Your task to perform on an android device: What's the weather going to be this weekend? Image 0: 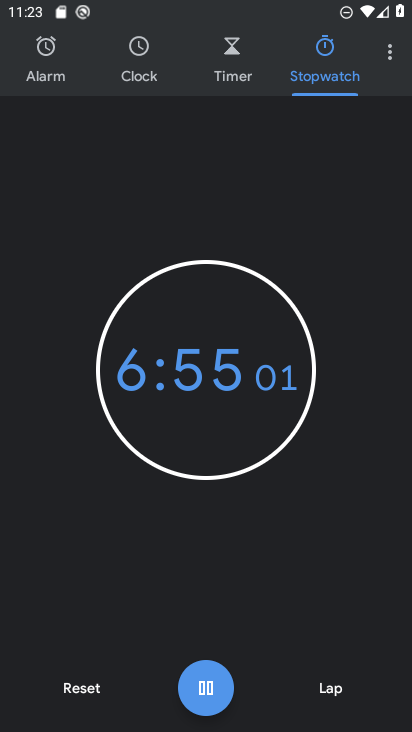
Step 0: drag from (186, 576) to (319, 217)
Your task to perform on an android device: What's the weather going to be this weekend? Image 1: 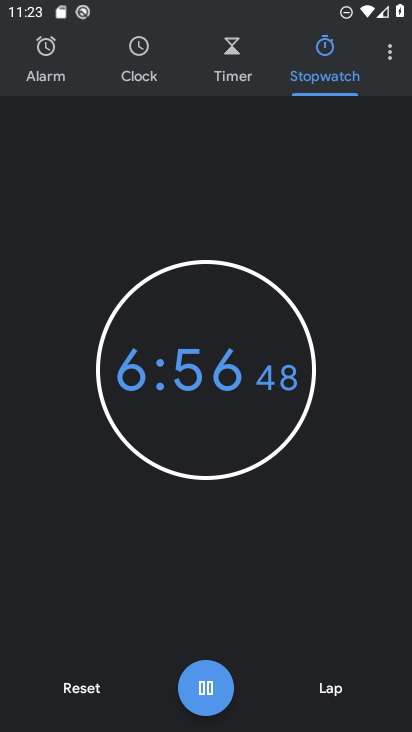
Step 1: click (89, 688)
Your task to perform on an android device: What's the weather going to be this weekend? Image 2: 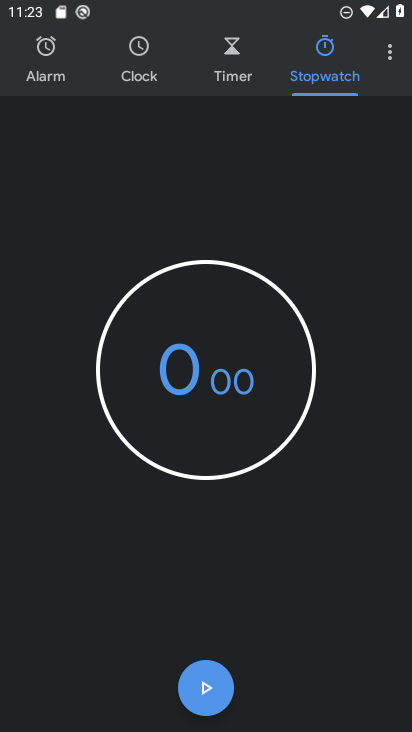
Step 2: click (387, 52)
Your task to perform on an android device: What's the weather going to be this weekend? Image 3: 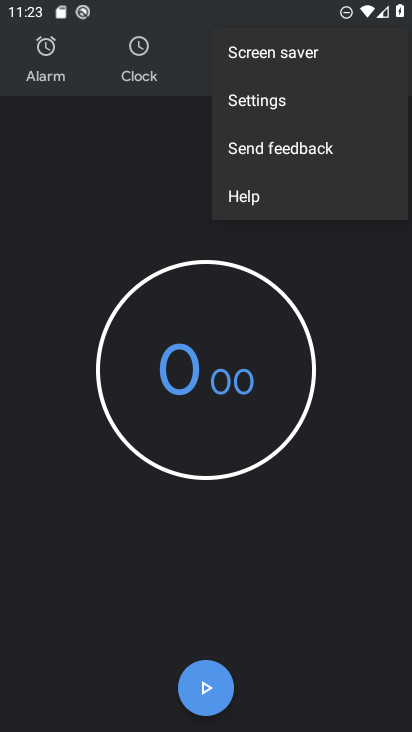
Step 3: click (308, 108)
Your task to perform on an android device: What's the weather going to be this weekend? Image 4: 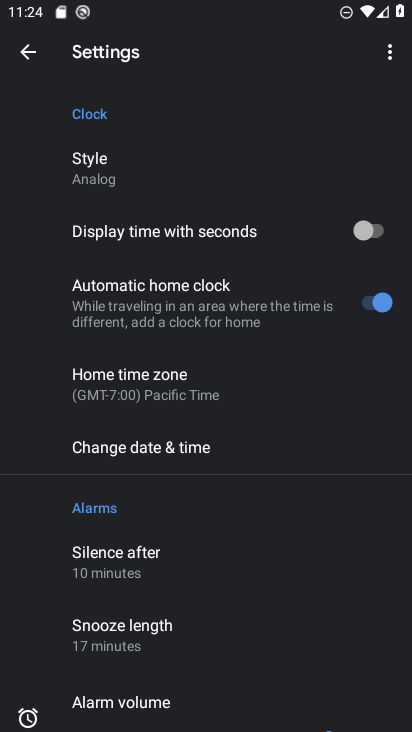
Step 4: press home button
Your task to perform on an android device: What's the weather going to be this weekend? Image 5: 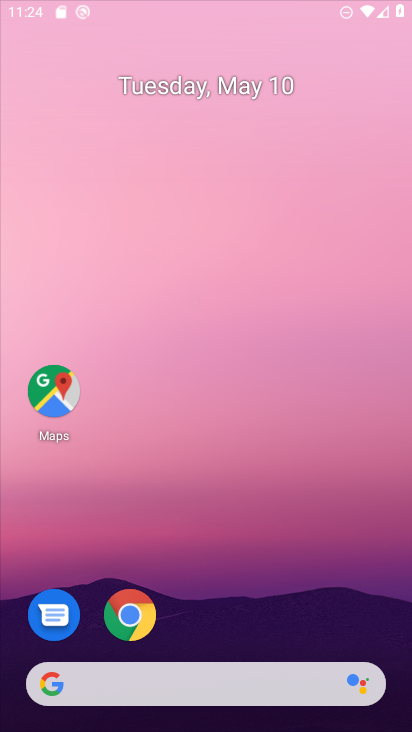
Step 5: drag from (211, 629) to (322, 218)
Your task to perform on an android device: What's the weather going to be this weekend? Image 6: 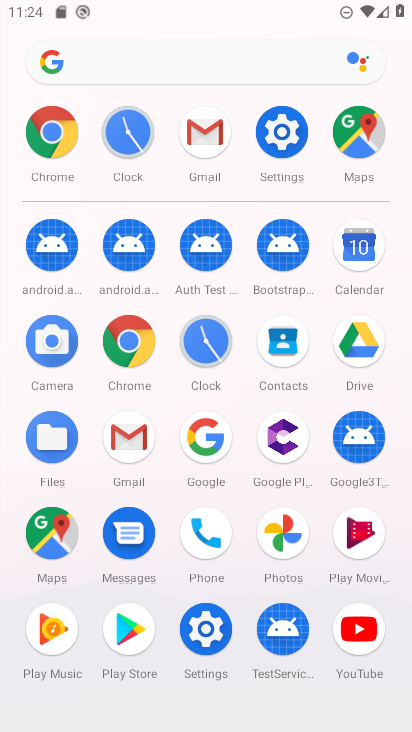
Step 6: click (151, 63)
Your task to perform on an android device: What's the weather going to be this weekend? Image 7: 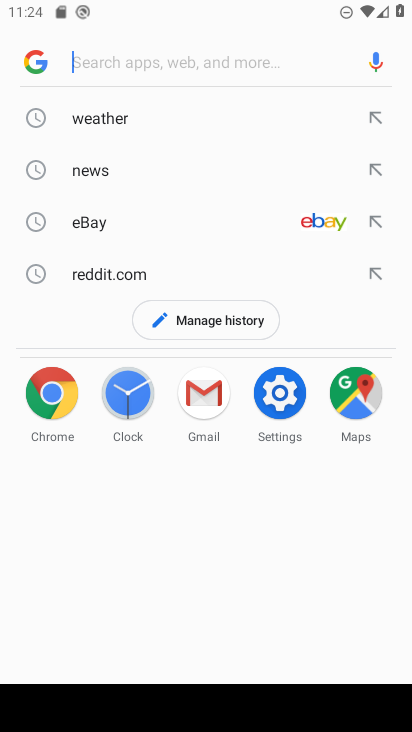
Step 7: type "waether weekend"
Your task to perform on an android device: What's the weather going to be this weekend? Image 8: 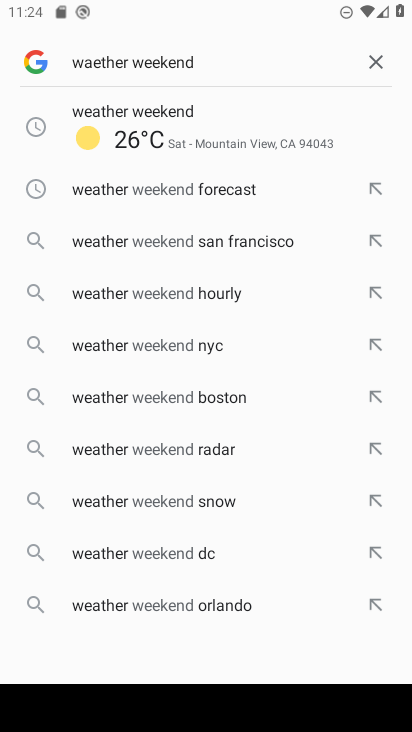
Step 8: click (149, 107)
Your task to perform on an android device: What's the weather going to be this weekend? Image 9: 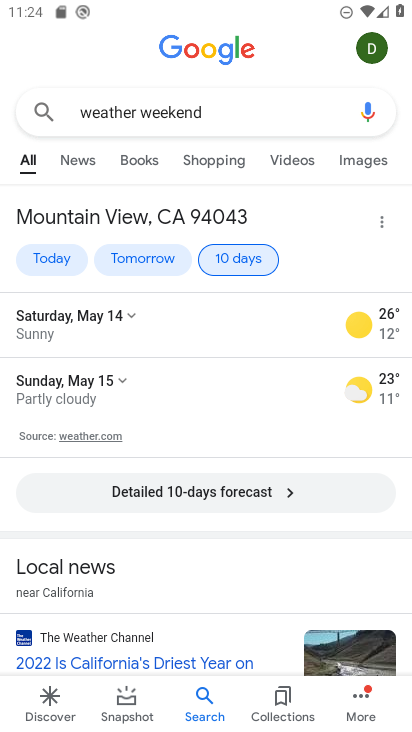
Step 9: drag from (249, 527) to (269, 167)
Your task to perform on an android device: What's the weather going to be this weekend? Image 10: 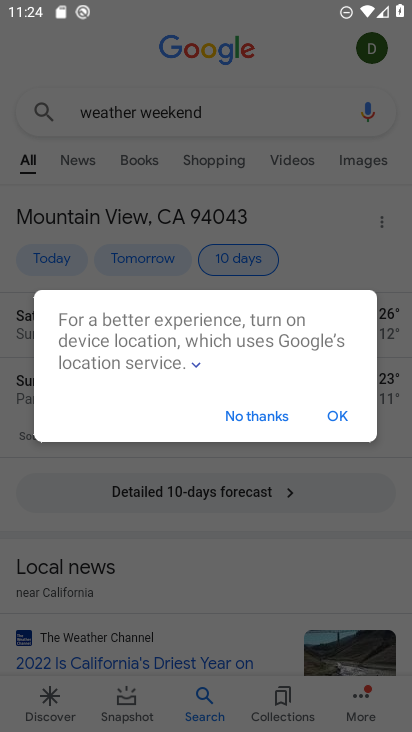
Step 10: click (316, 417)
Your task to perform on an android device: What's the weather going to be this weekend? Image 11: 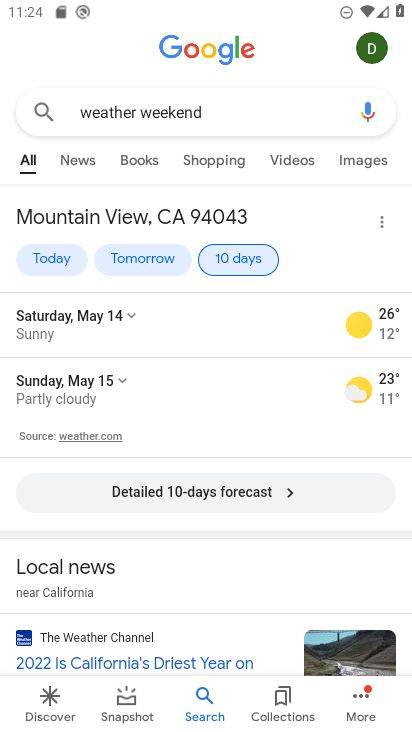
Step 11: task complete